Your task to perform on an android device: Go to sound settings Image 0: 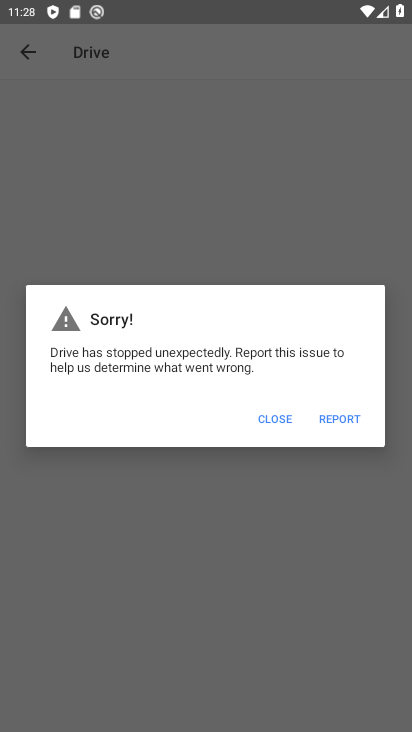
Step 0: press home button
Your task to perform on an android device: Go to sound settings Image 1: 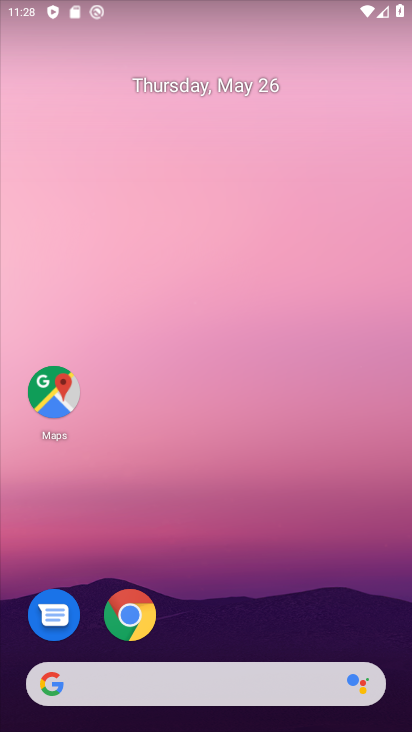
Step 1: drag from (237, 618) to (152, 90)
Your task to perform on an android device: Go to sound settings Image 2: 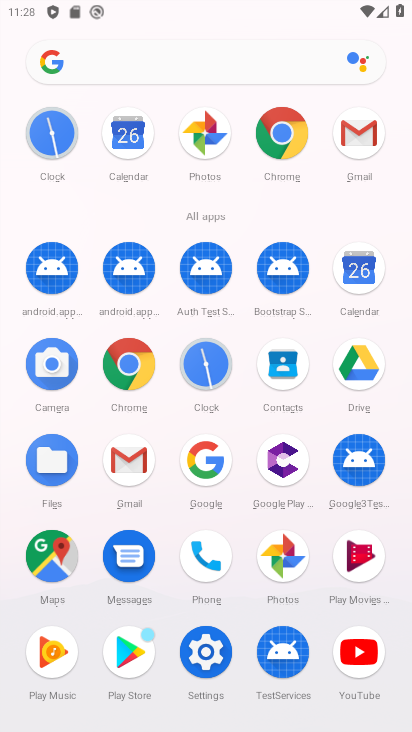
Step 2: click (213, 650)
Your task to perform on an android device: Go to sound settings Image 3: 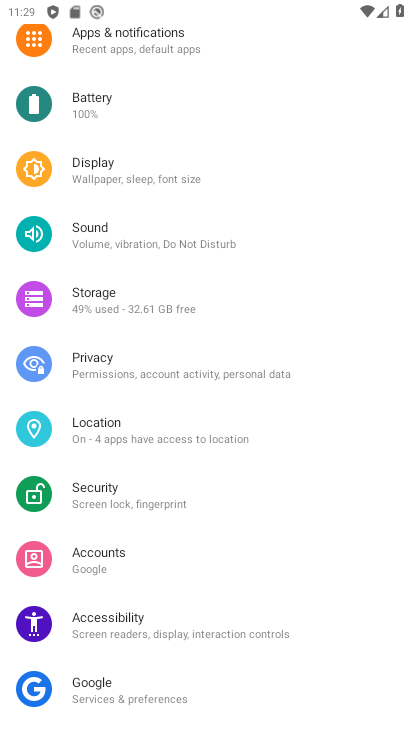
Step 3: click (166, 230)
Your task to perform on an android device: Go to sound settings Image 4: 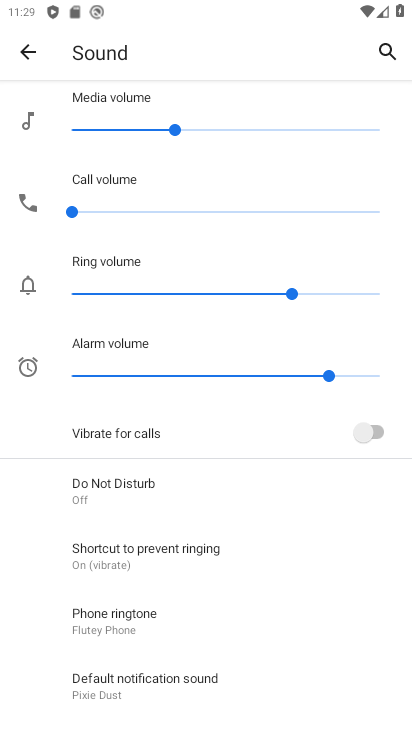
Step 4: task complete